Your task to perform on an android device: Open the web browser Image 0: 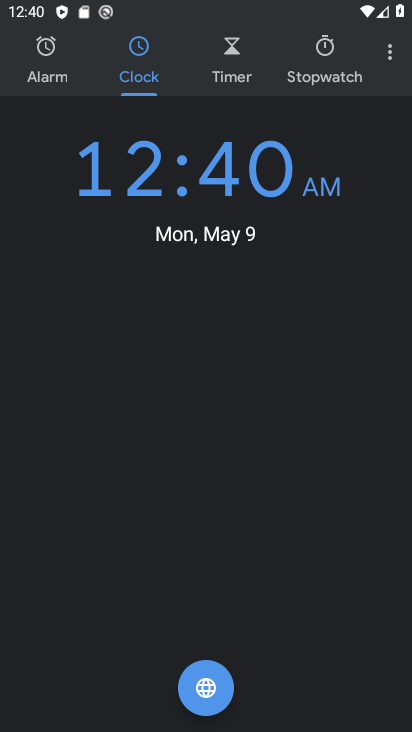
Step 0: press back button
Your task to perform on an android device: Open the web browser Image 1: 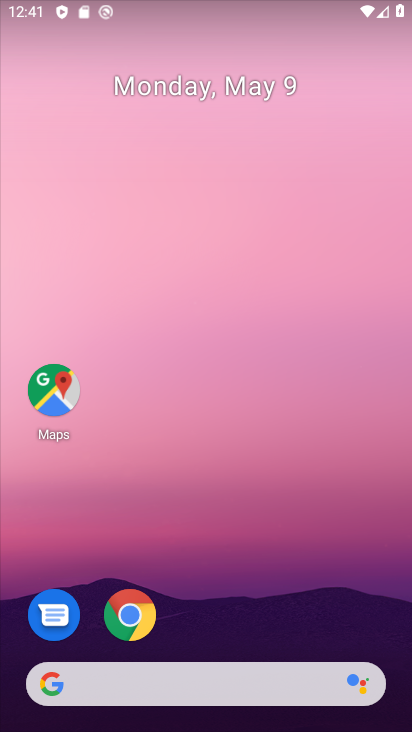
Step 1: click (131, 614)
Your task to perform on an android device: Open the web browser Image 2: 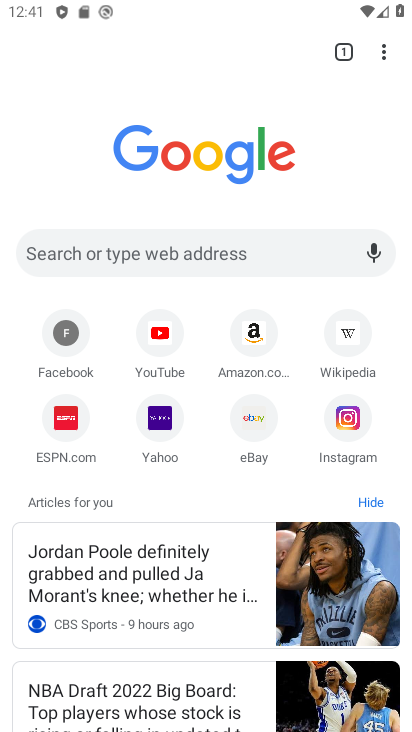
Step 2: task complete